Your task to perform on an android device: turn on airplane mode Image 0: 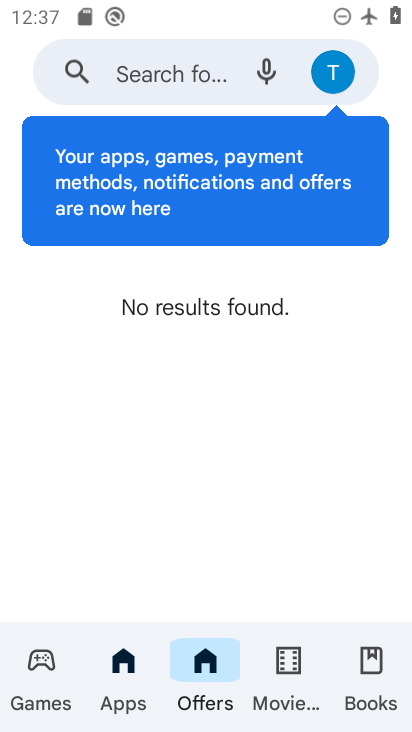
Step 0: press home button
Your task to perform on an android device: turn on airplane mode Image 1: 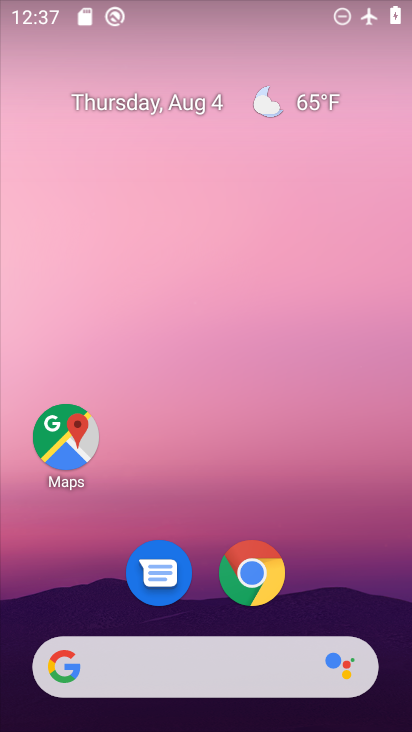
Step 1: task complete